Your task to perform on an android device: Go to wifi settings Image 0: 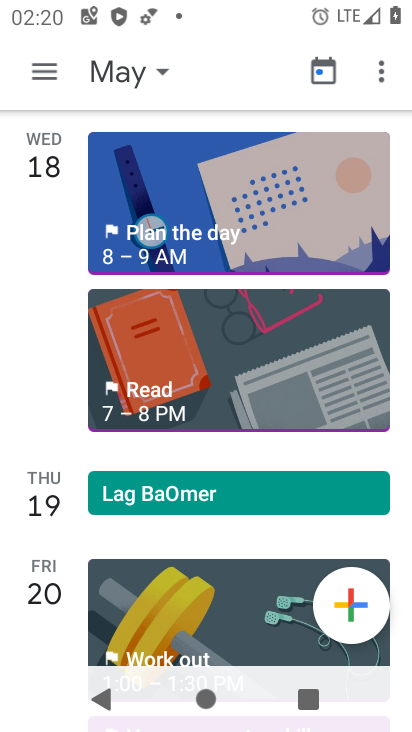
Step 0: press home button
Your task to perform on an android device: Go to wifi settings Image 1: 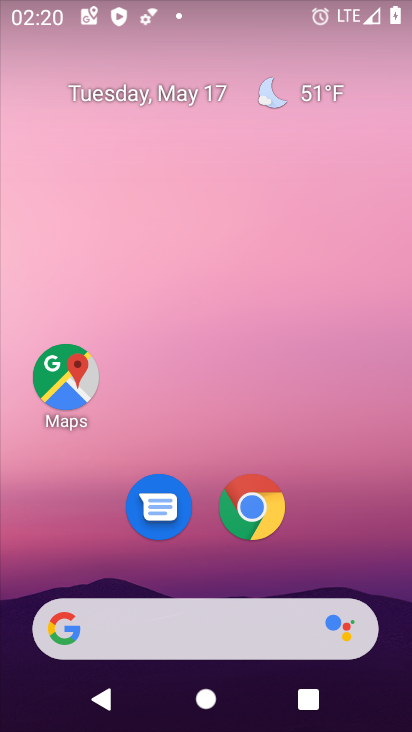
Step 1: drag from (209, 556) to (216, 111)
Your task to perform on an android device: Go to wifi settings Image 2: 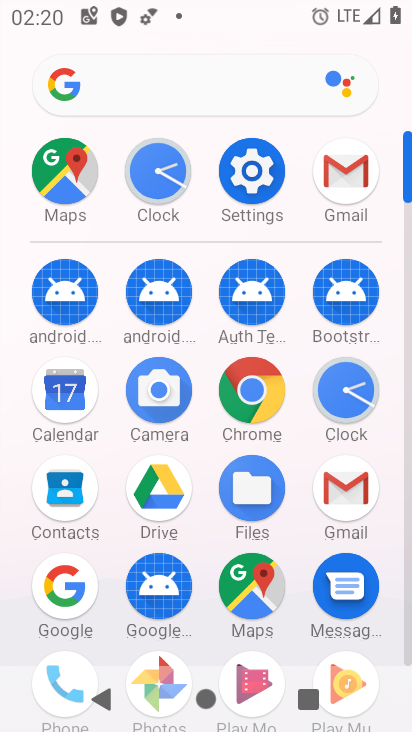
Step 2: click (249, 184)
Your task to perform on an android device: Go to wifi settings Image 3: 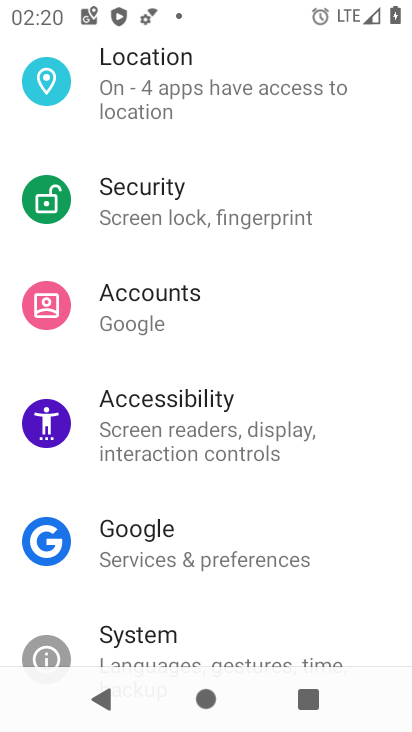
Step 3: drag from (246, 196) to (312, 355)
Your task to perform on an android device: Go to wifi settings Image 4: 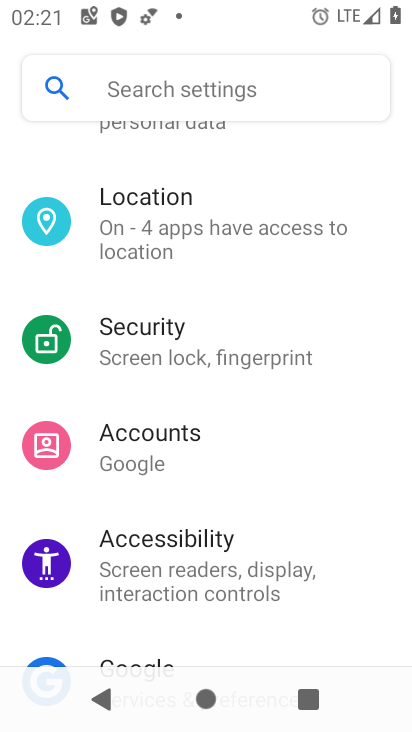
Step 4: drag from (300, 154) to (349, 374)
Your task to perform on an android device: Go to wifi settings Image 5: 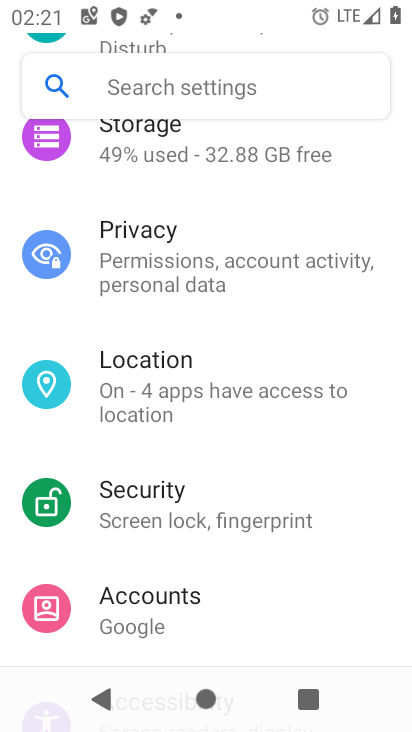
Step 5: drag from (315, 278) to (337, 455)
Your task to perform on an android device: Go to wifi settings Image 6: 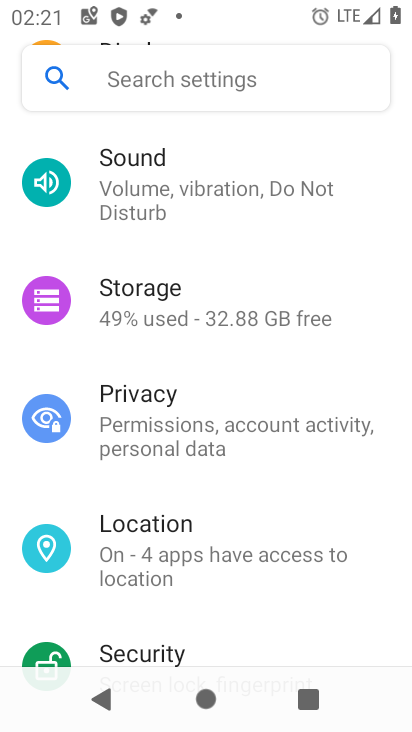
Step 6: drag from (300, 348) to (307, 473)
Your task to perform on an android device: Go to wifi settings Image 7: 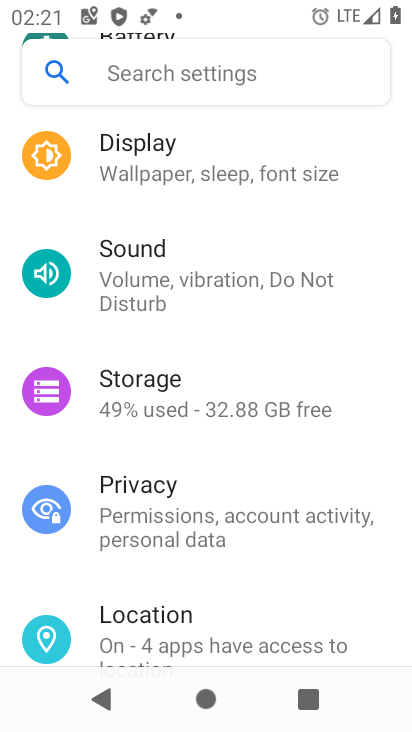
Step 7: drag from (275, 350) to (303, 466)
Your task to perform on an android device: Go to wifi settings Image 8: 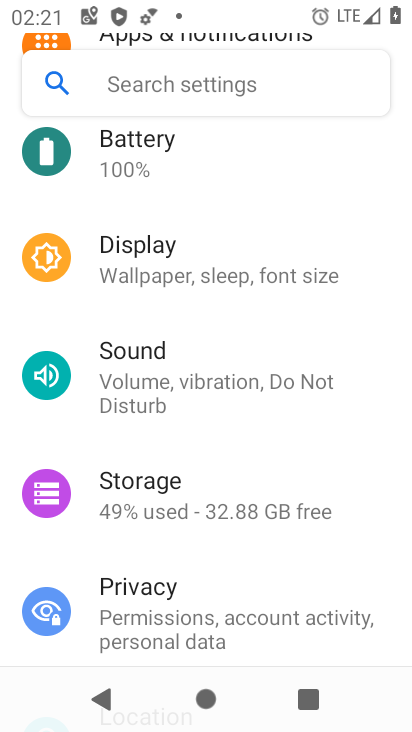
Step 8: drag from (285, 358) to (302, 549)
Your task to perform on an android device: Go to wifi settings Image 9: 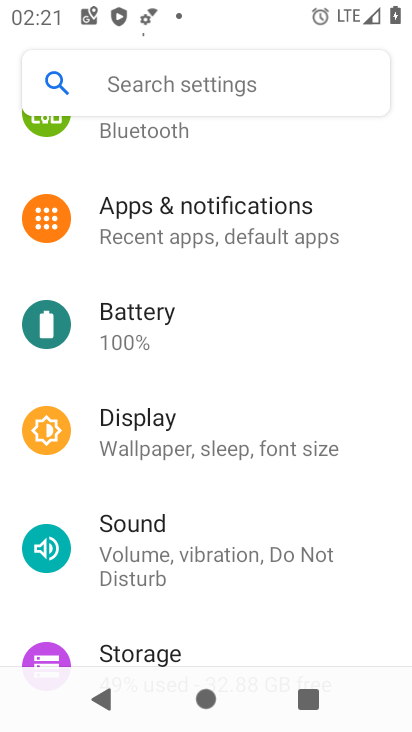
Step 9: drag from (289, 328) to (300, 483)
Your task to perform on an android device: Go to wifi settings Image 10: 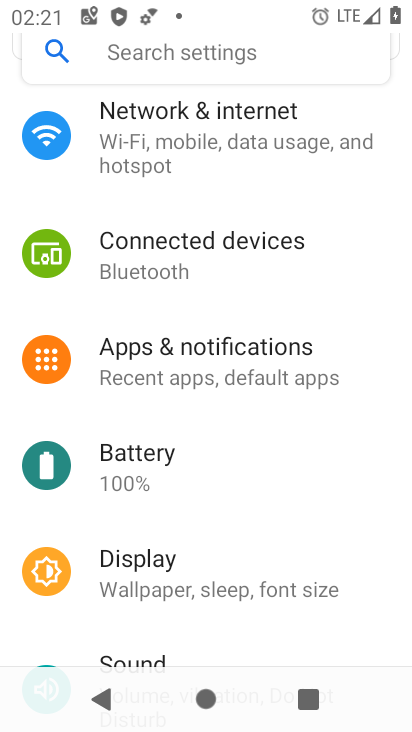
Step 10: drag from (300, 282) to (270, 456)
Your task to perform on an android device: Go to wifi settings Image 11: 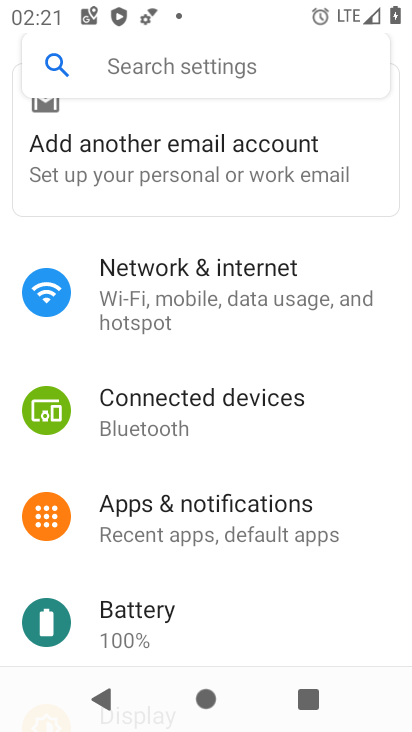
Step 11: click (224, 317)
Your task to perform on an android device: Go to wifi settings Image 12: 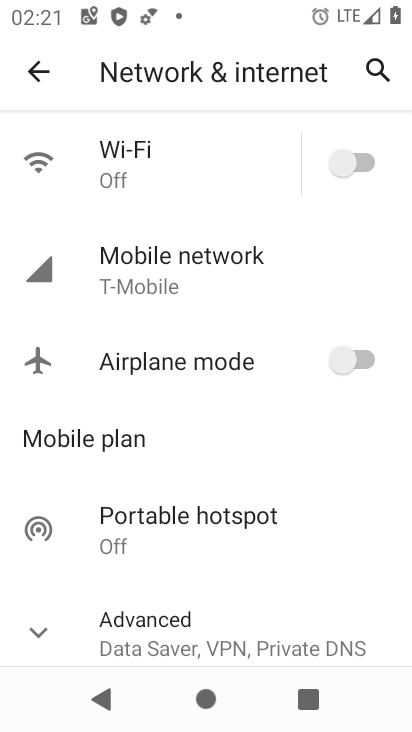
Step 12: click (96, 176)
Your task to perform on an android device: Go to wifi settings Image 13: 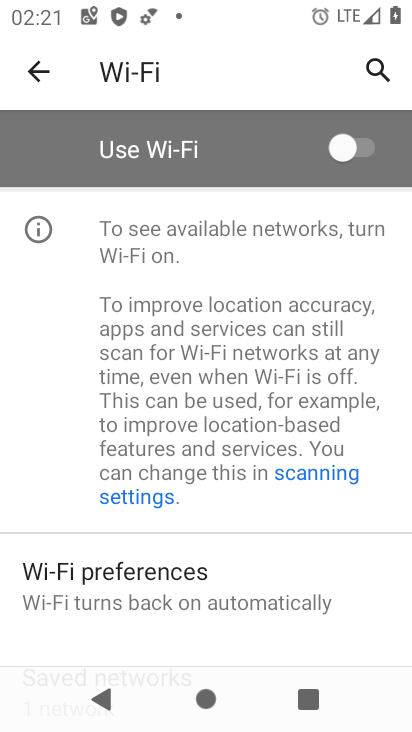
Step 13: task complete